Your task to perform on an android device: Open the web browser Image 0: 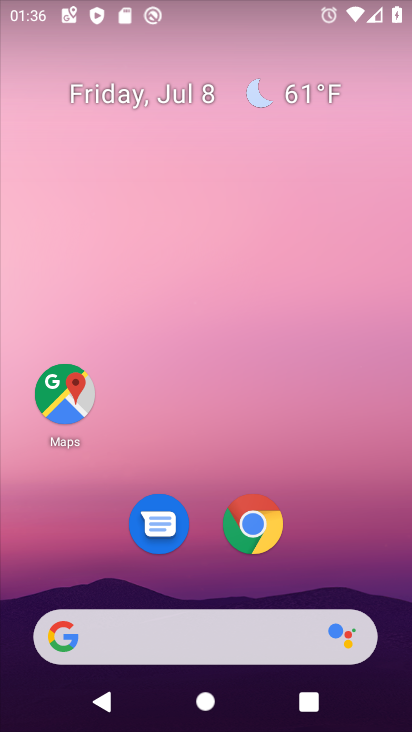
Step 0: click (208, 644)
Your task to perform on an android device: Open the web browser Image 1: 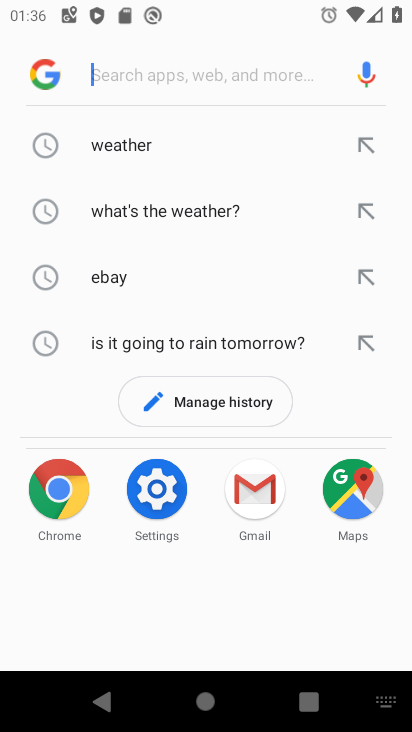
Step 1: task complete